Your task to perform on an android device: Turn on the flashlight Image 0: 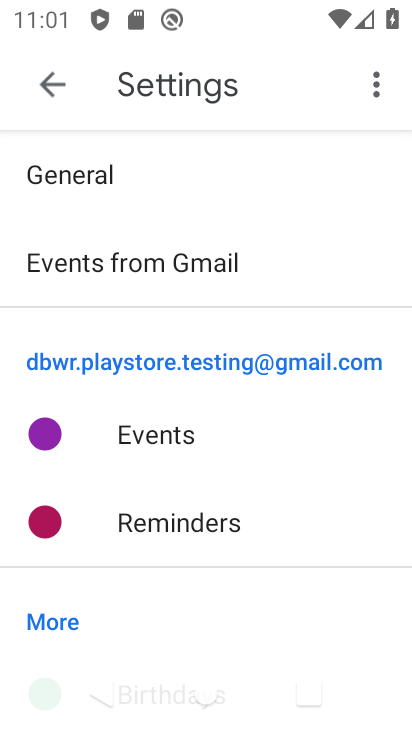
Step 0: press home button
Your task to perform on an android device: Turn on the flashlight Image 1: 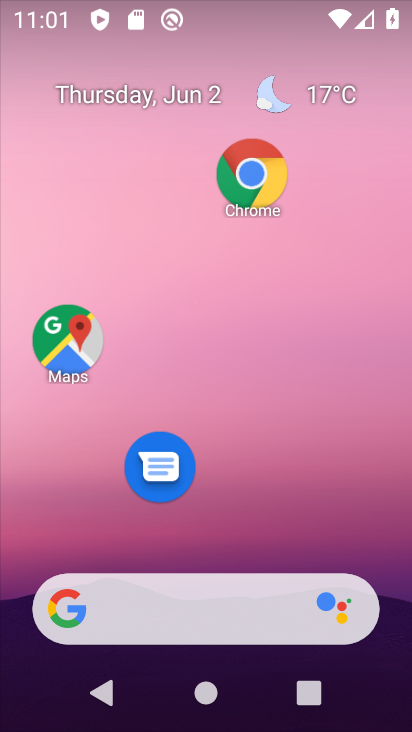
Step 1: task complete